Your task to perform on an android device: turn on translation in the chrome app Image 0: 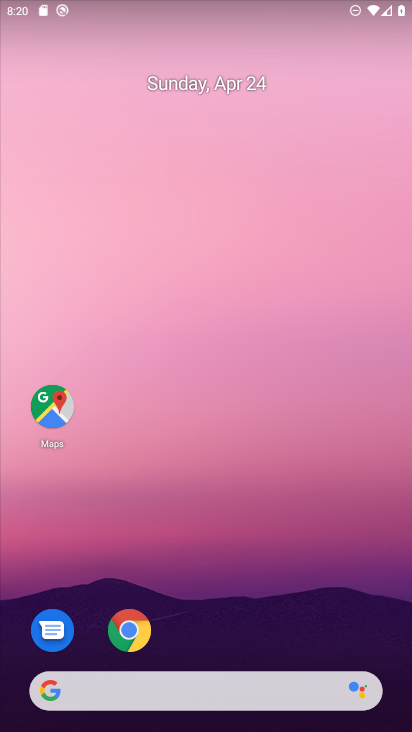
Step 0: drag from (221, 604) to (156, 684)
Your task to perform on an android device: turn on translation in the chrome app Image 1: 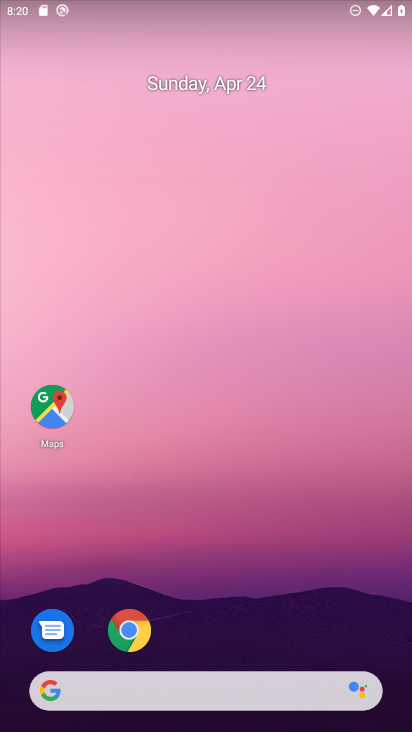
Step 1: click (136, 616)
Your task to perform on an android device: turn on translation in the chrome app Image 2: 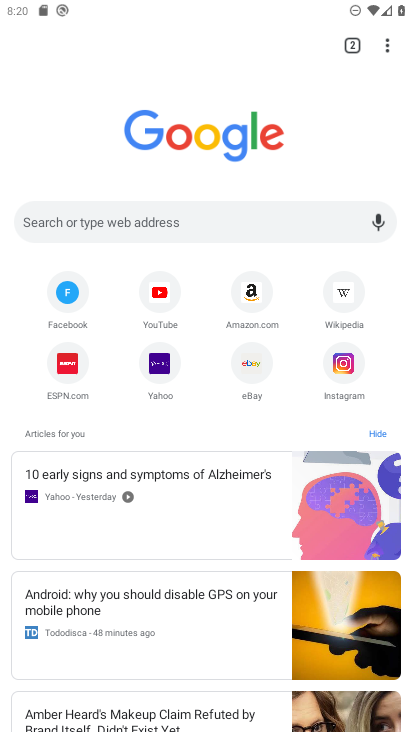
Step 2: drag from (384, 38) to (206, 375)
Your task to perform on an android device: turn on translation in the chrome app Image 3: 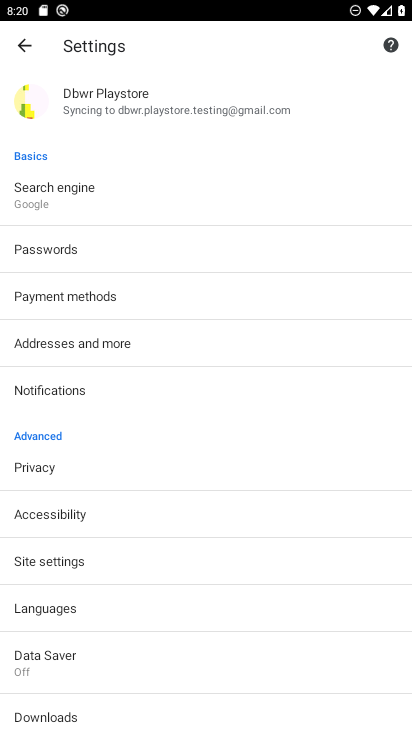
Step 3: click (72, 608)
Your task to perform on an android device: turn on translation in the chrome app Image 4: 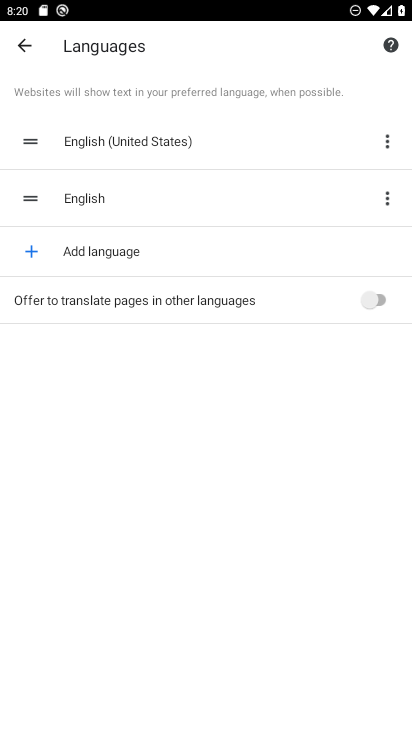
Step 4: click (379, 293)
Your task to perform on an android device: turn on translation in the chrome app Image 5: 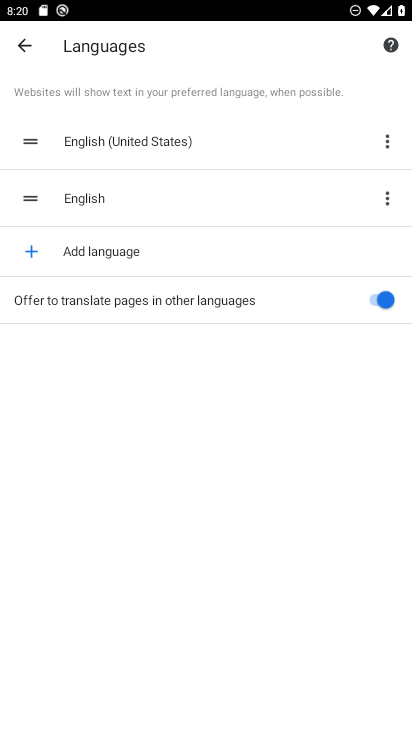
Step 5: task complete